Your task to perform on an android device: turn on wifi Image 0: 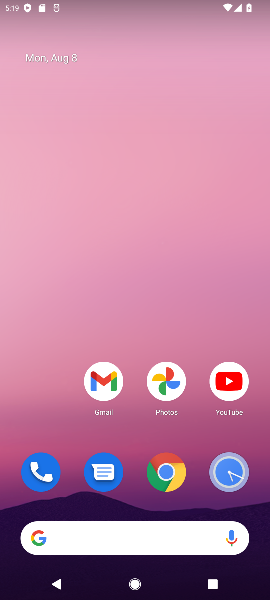
Step 0: press home button
Your task to perform on an android device: turn on wifi Image 1: 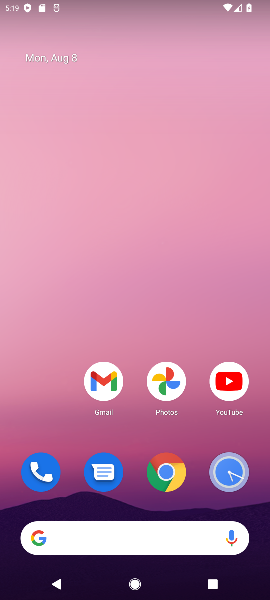
Step 1: drag from (65, 420) to (133, 68)
Your task to perform on an android device: turn on wifi Image 2: 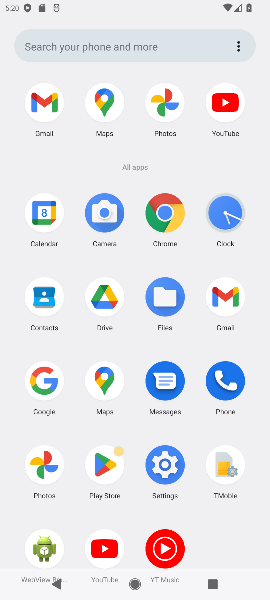
Step 2: click (165, 455)
Your task to perform on an android device: turn on wifi Image 3: 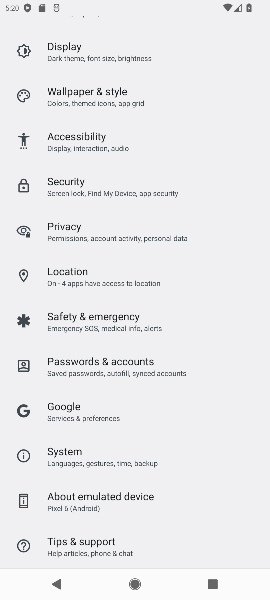
Step 3: drag from (188, 78) to (210, 577)
Your task to perform on an android device: turn on wifi Image 4: 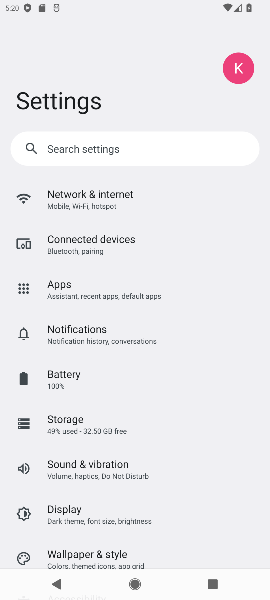
Step 4: click (70, 194)
Your task to perform on an android device: turn on wifi Image 5: 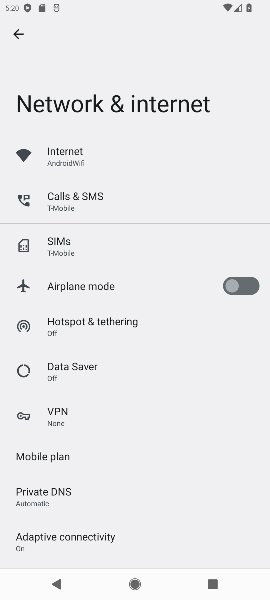
Step 5: click (50, 150)
Your task to perform on an android device: turn on wifi Image 6: 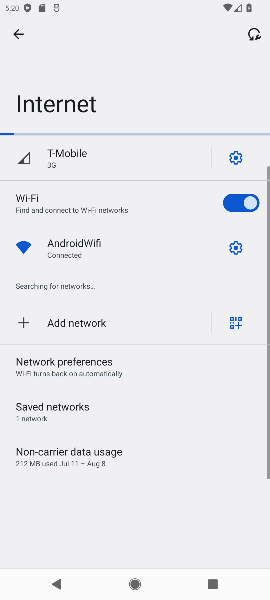
Step 6: task complete